Your task to perform on an android device: change text size in settings app Image 0: 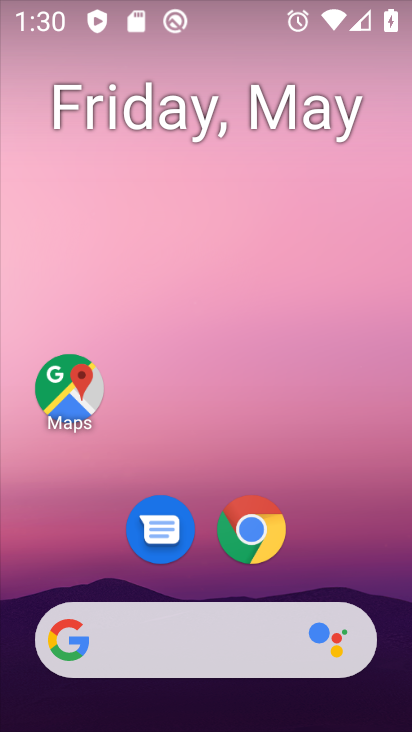
Step 0: drag from (386, 682) to (364, 292)
Your task to perform on an android device: change text size in settings app Image 1: 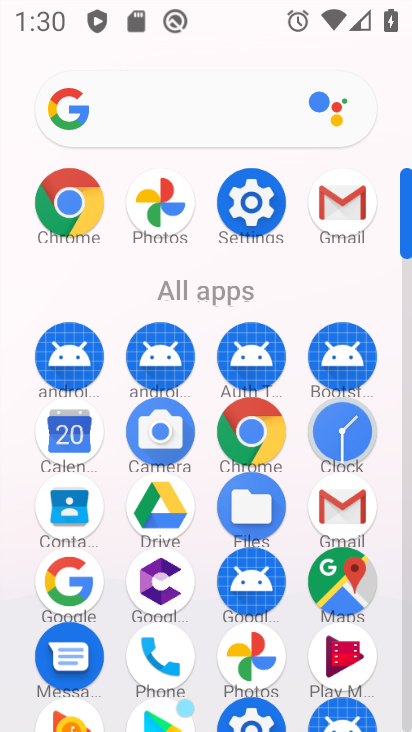
Step 1: click (244, 186)
Your task to perform on an android device: change text size in settings app Image 2: 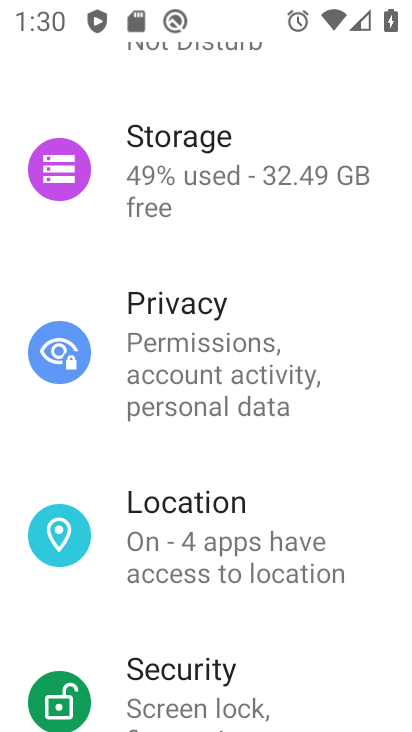
Step 2: drag from (323, 486) to (329, 318)
Your task to perform on an android device: change text size in settings app Image 3: 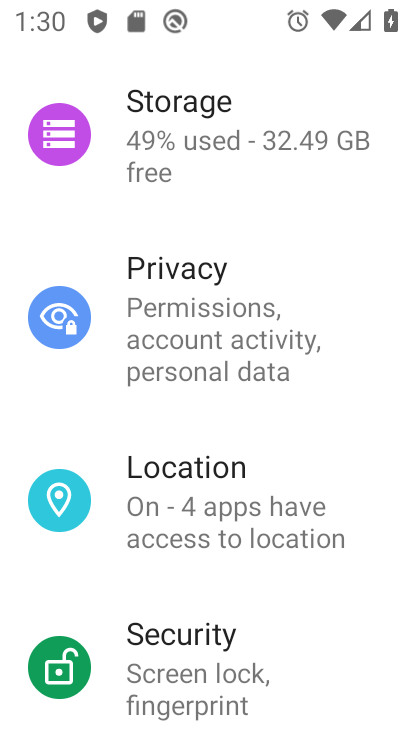
Step 3: drag from (353, 226) to (348, 712)
Your task to perform on an android device: change text size in settings app Image 4: 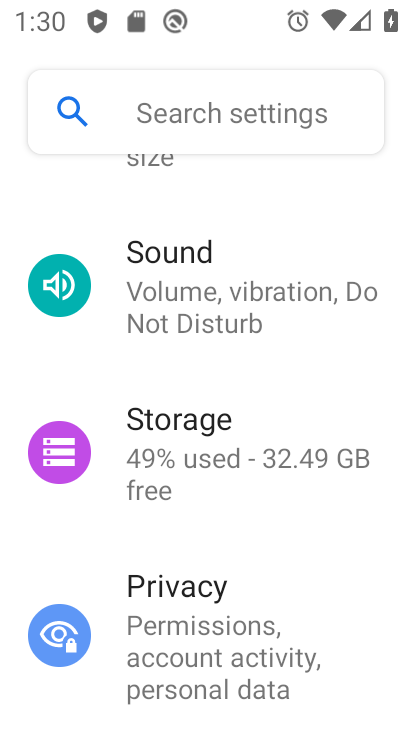
Step 4: drag from (336, 205) to (368, 592)
Your task to perform on an android device: change text size in settings app Image 5: 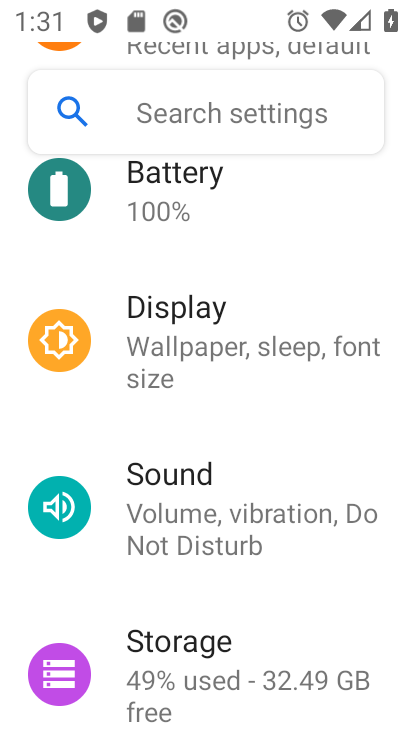
Step 5: click (171, 345)
Your task to perform on an android device: change text size in settings app Image 6: 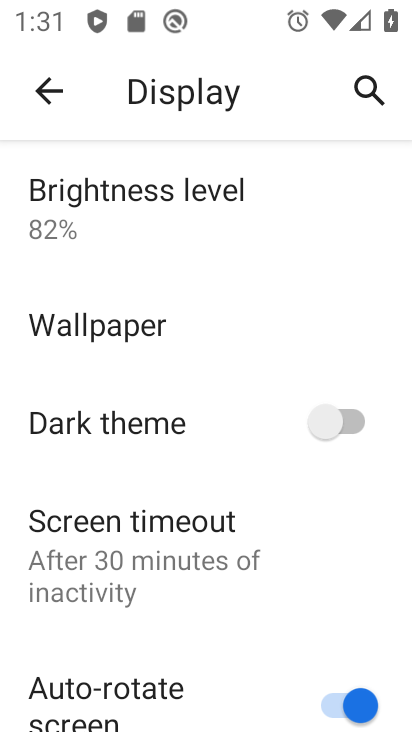
Step 6: drag from (256, 682) to (234, 330)
Your task to perform on an android device: change text size in settings app Image 7: 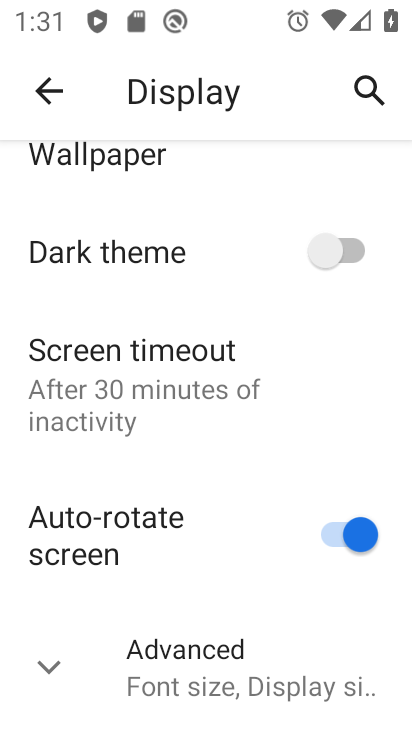
Step 7: drag from (235, 545) to (237, 325)
Your task to perform on an android device: change text size in settings app Image 8: 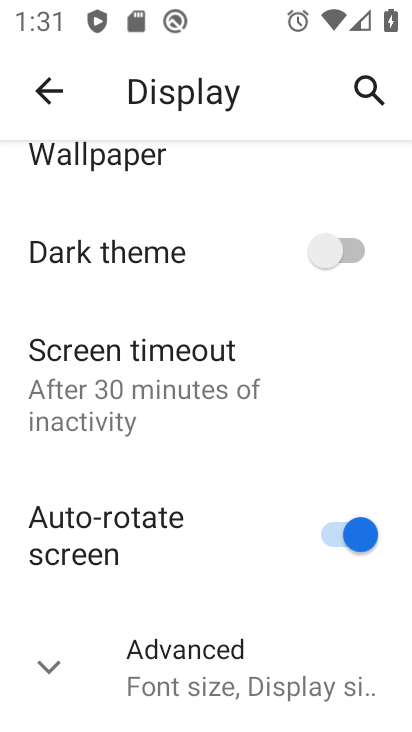
Step 8: click (55, 664)
Your task to perform on an android device: change text size in settings app Image 9: 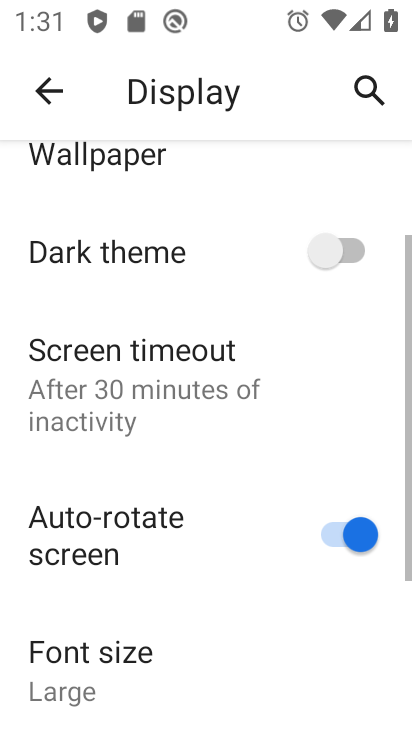
Step 9: drag from (275, 645) to (268, 416)
Your task to perform on an android device: change text size in settings app Image 10: 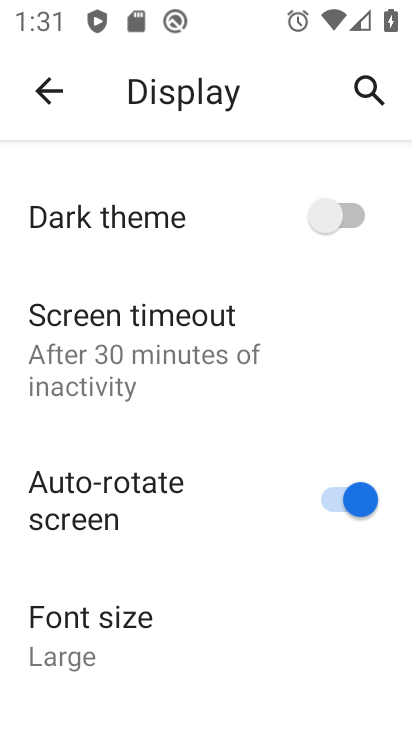
Step 10: click (67, 648)
Your task to perform on an android device: change text size in settings app Image 11: 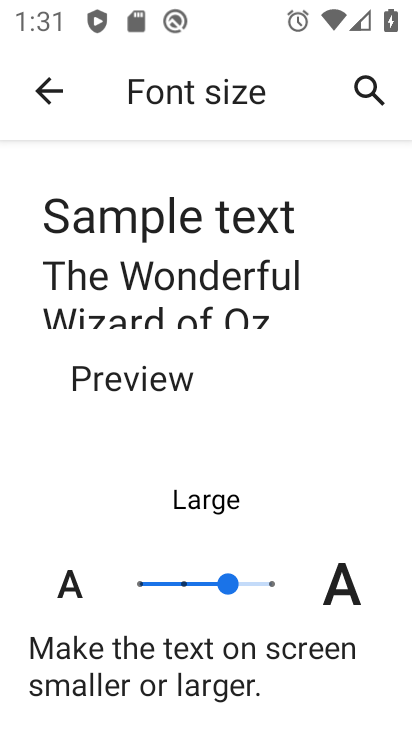
Step 11: click (187, 585)
Your task to perform on an android device: change text size in settings app Image 12: 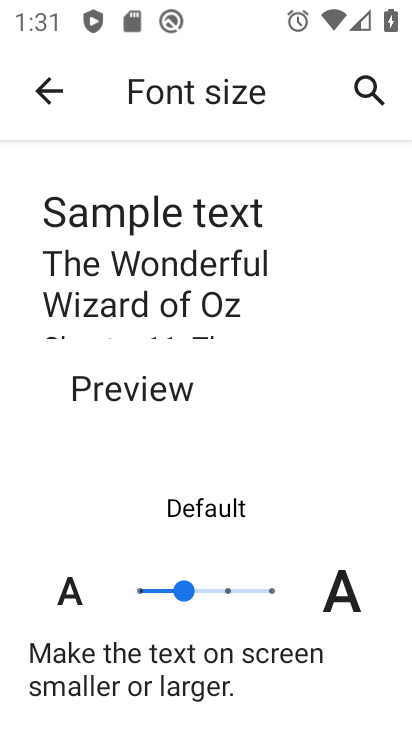
Step 12: task complete